Your task to perform on an android device: create a new album in the google photos Image 0: 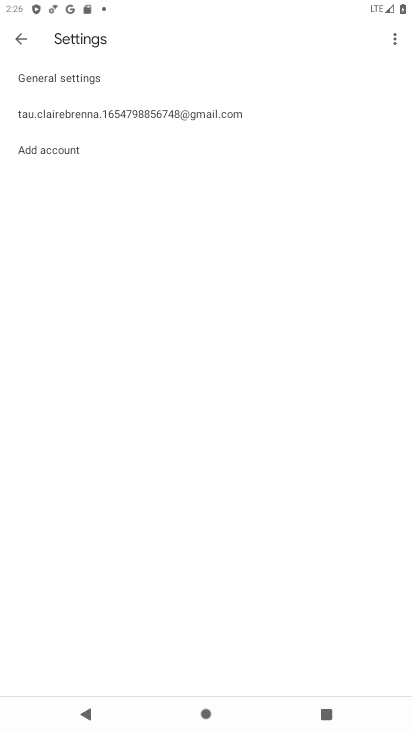
Step 0: press home button
Your task to perform on an android device: create a new album in the google photos Image 1: 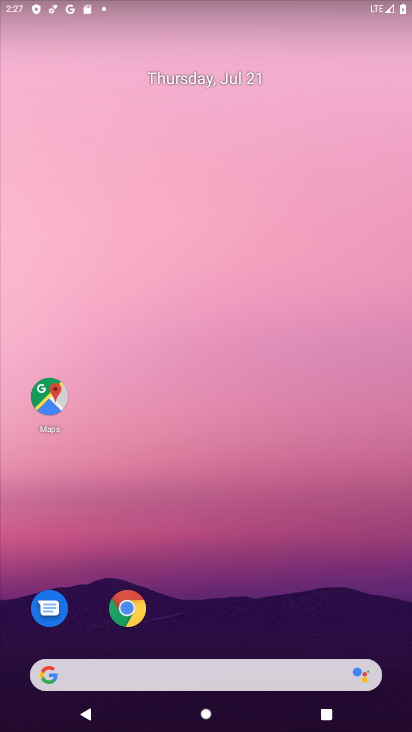
Step 1: drag from (217, 606) to (143, 66)
Your task to perform on an android device: create a new album in the google photos Image 2: 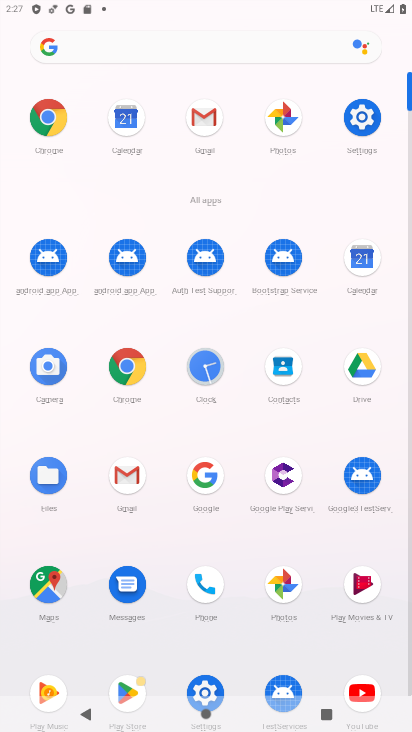
Step 2: click (287, 584)
Your task to perform on an android device: create a new album in the google photos Image 3: 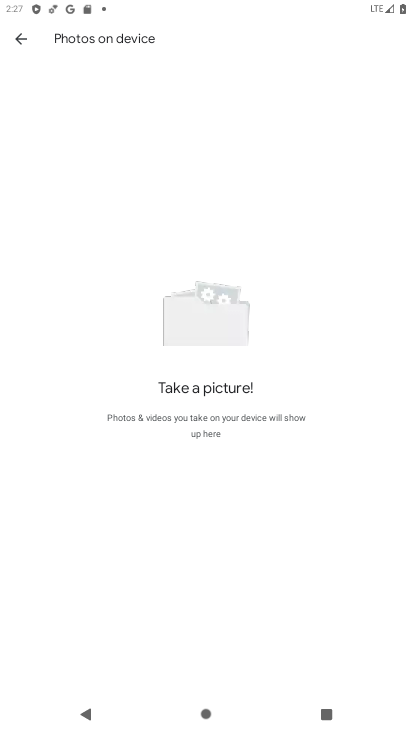
Step 3: click (18, 33)
Your task to perform on an android device: create a new album in the google photos Image 4: 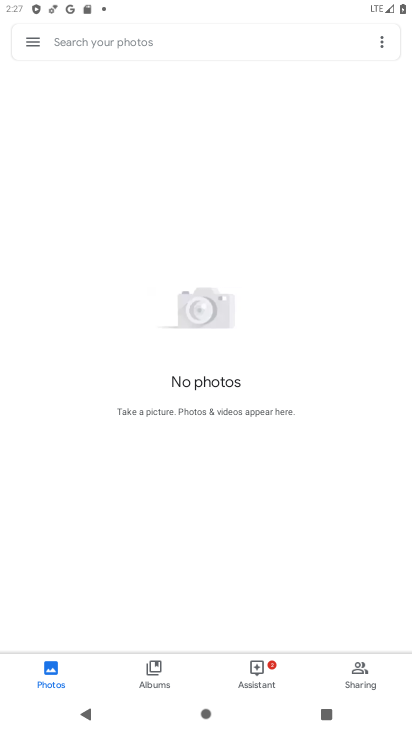
Step 4: click (153, 688)
Your task to perform on an android device: create a new album in the google photos Image 5: 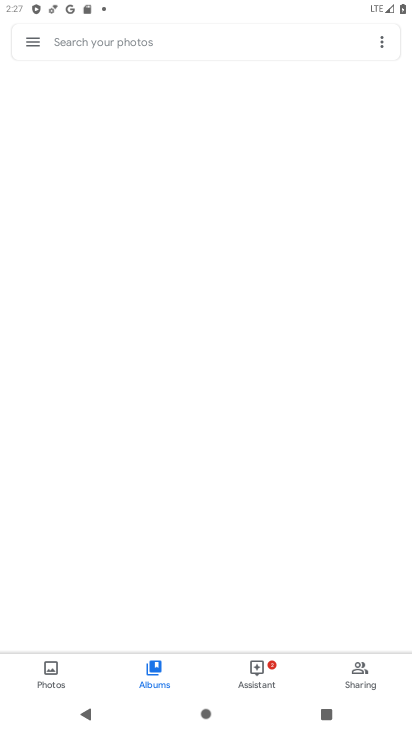
Step 5: task complete